Your task to perform on an android device: Go to notification settings Image 0: 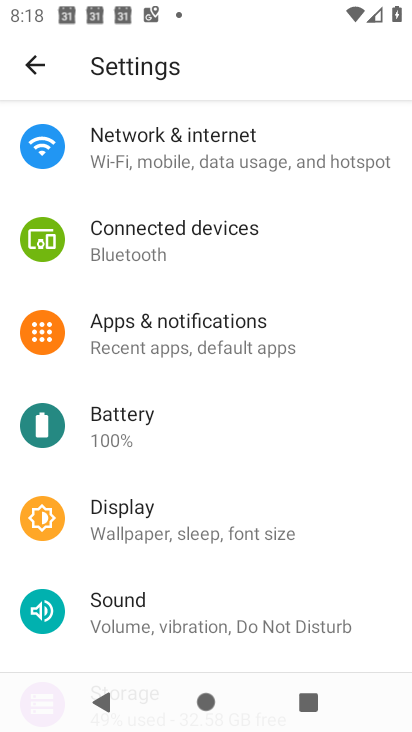
Step 0: click (231, 341)
Your task to perform on an android device: Go to notification settings Image 1: 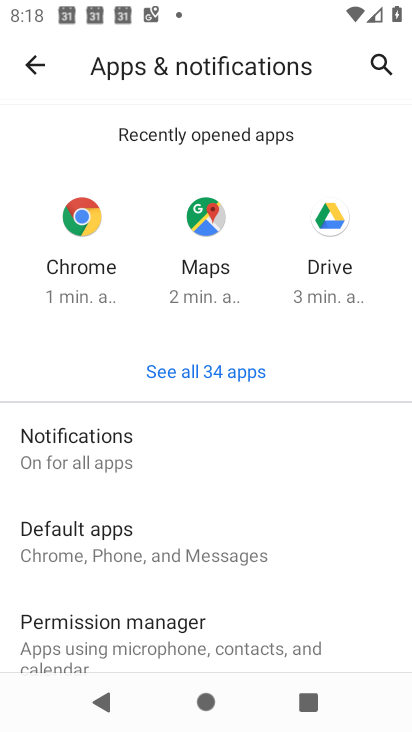
Step 1: click (167, 456)
Your task to perform on an android device: Go to notification settings Image 2: 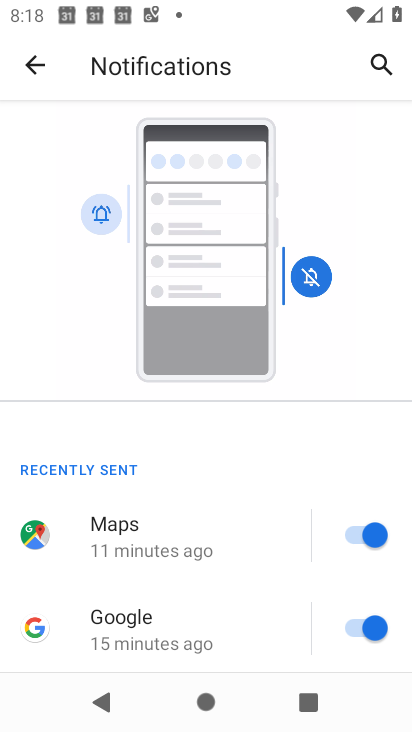
Step 2: task complete